Your task to perform on an android device: install app "LiveIn - Share Your Moment" Image 0: 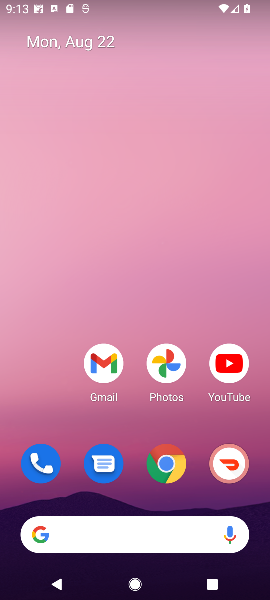
Step 0: drag from (141, 450) to (130, 57)
Your task to perform on an android device: install app "LiveIn - Share Your Moment" Image 1: 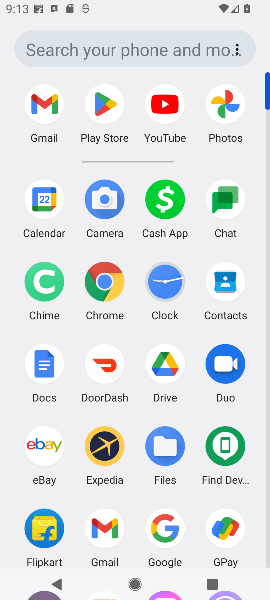
Step 1: click (104, 94)
Your task to perform on an android device: install app "LiveIn - Share Your Moment" Image 2: 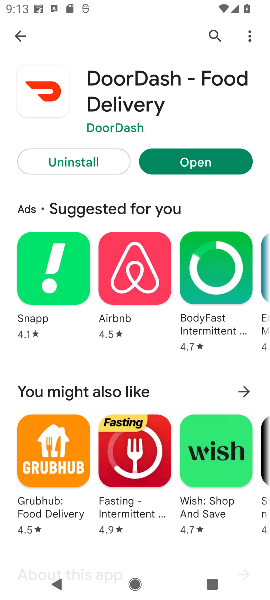
Step 2: click (22, 37)
Your task to perform on an android device: install app "LiveIn - Share Your Moment" Image 3: 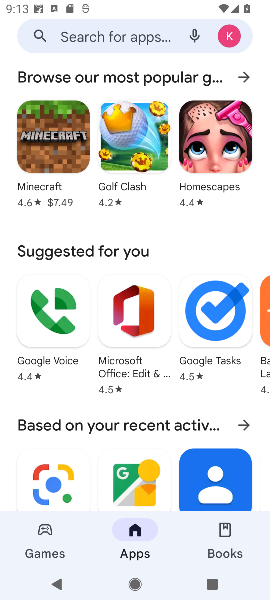
Step 3: click (58, 36)
Your task to perform on an android device: install app "LiveIn - Share Your Moment" Image 4: 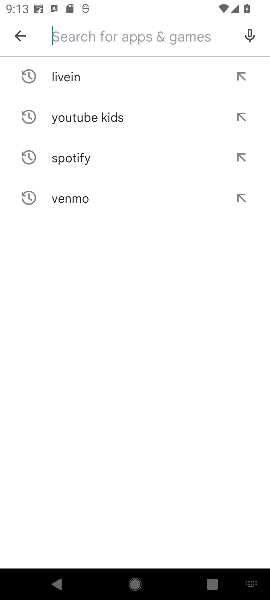
Step 4: type "LiveIn"
Your task to perform on an android device: install app "LiveIn - Share Your Moment" Image 5: 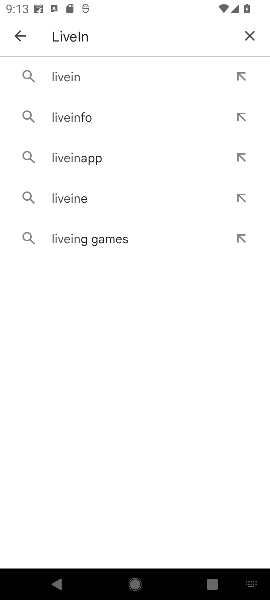
Step 5: click (56, 75)
Your task to perform on an android device: install app "LiveIn - Share Your Moment" Image 6: 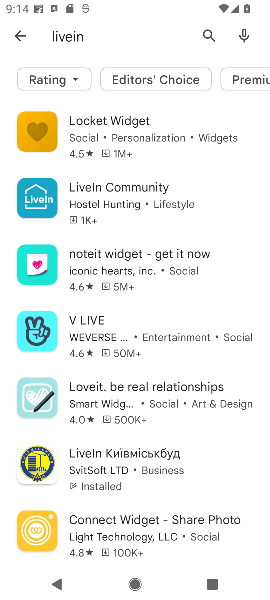
Step 6: click (100, 457)
Your task to perform on an android device: install app "LiveIn - Share Your Moment" Image 7: 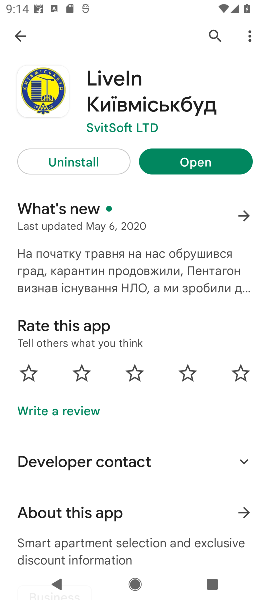
Step 7: click (197, 151)
Your task to perform on an android device: install app "LiveIn - Share Your Moment" Image 8: 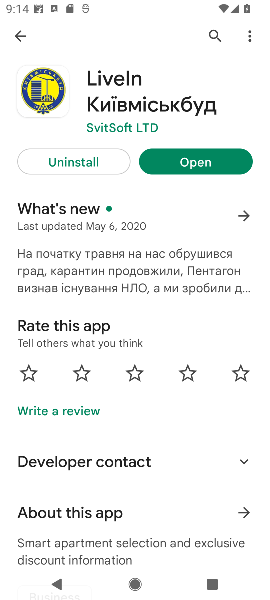
Step 8: click (184, 158)
Your task to perform on an android device: install app "LiveIn - Share Your Moment" Image 9: 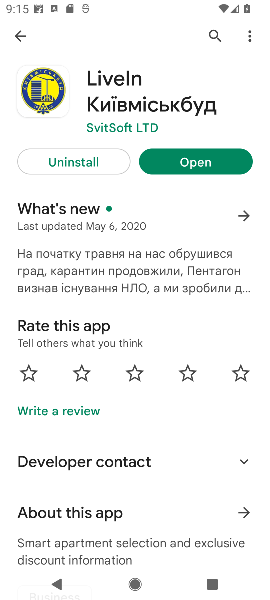
Step 9: click (184, 158)
Your task to perform on an android device: install app "LiveIn - Share Your Moment" Image 10: 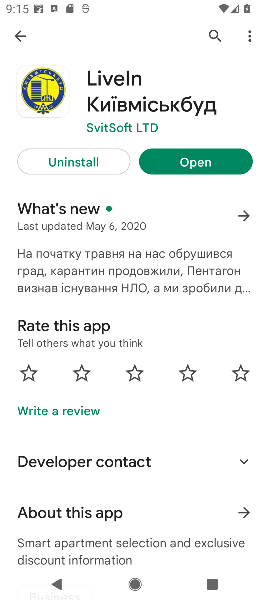
Step 10: click (184, 158)
Your task to perform on an android device: install app "LiveIn - Share Your Moment" Image 11: 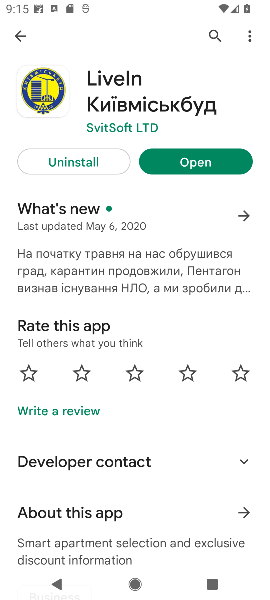
Step 11: task complete